Your task to perform on an android device: check out phone information Image 0: 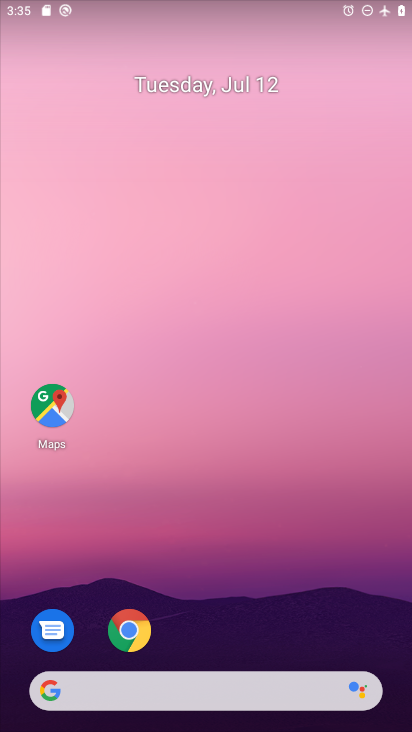
Step 0: drag from (213, 616) to (223, 121)
Your task to perform on an android device: check out phone information Image 1: 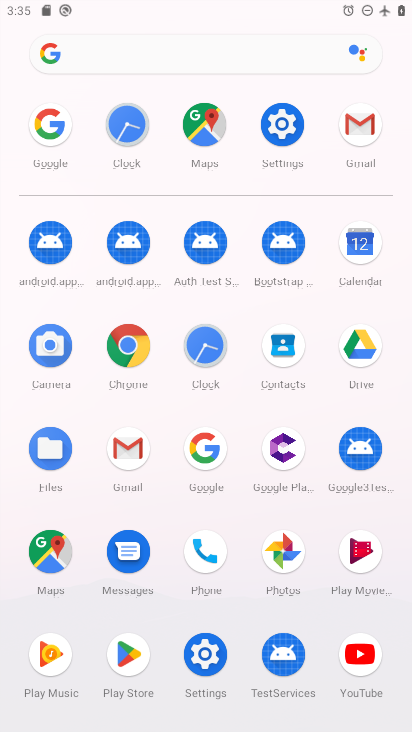
Step 1: click (262, 135)
Your task to perform on an android device: check out phone information Image 2: 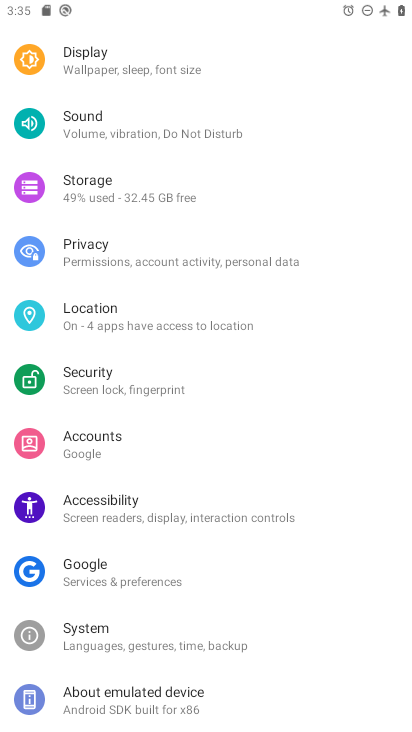
Step 2: click (204, 691)
Your task to perform on an android device: check out phone information Image 3: 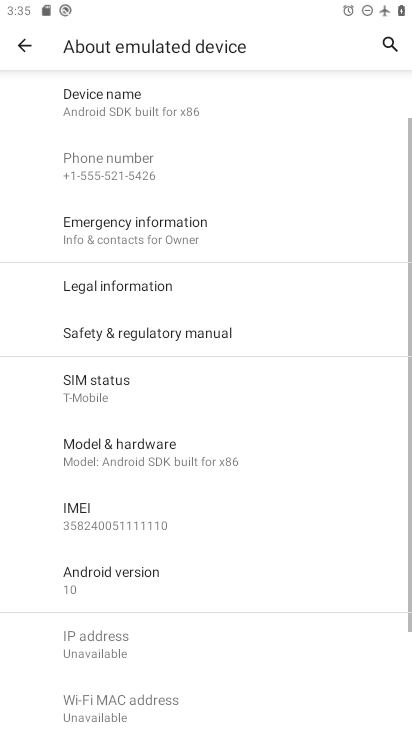
Step 3: task complete